Your task to perform on an android device: delete browsing data in the chrome app Image 0: 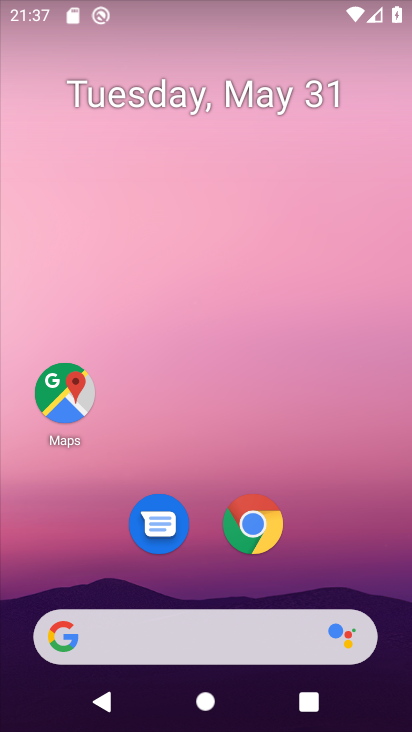
Step 0: click (258, 516)
Your task to perform on an android device: delete browsing data in the chrome app Image 1: 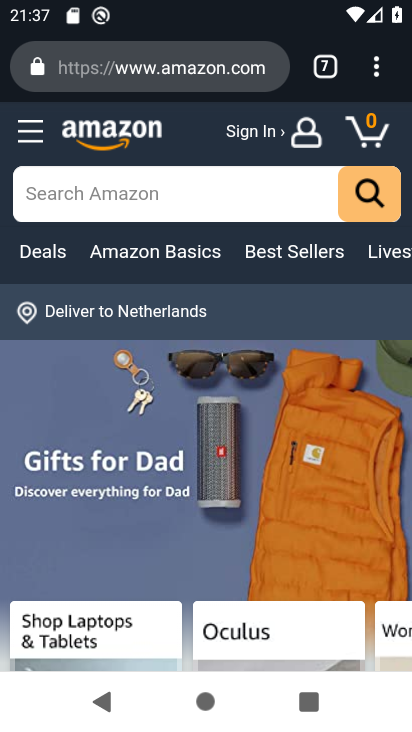
Step 1: click (378, 62)
Your task to perform on an android device: delete browsing data in the chrome app Image 2: 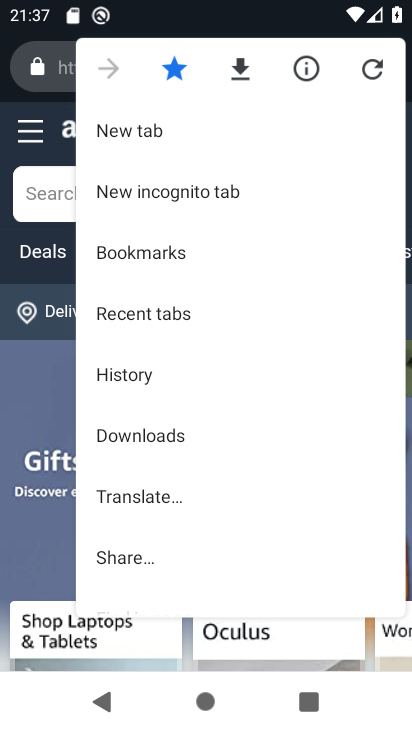
Step 2: click (154, 373)
Your task to perform on an android device: delete browsing data in the chrome app Image 3: 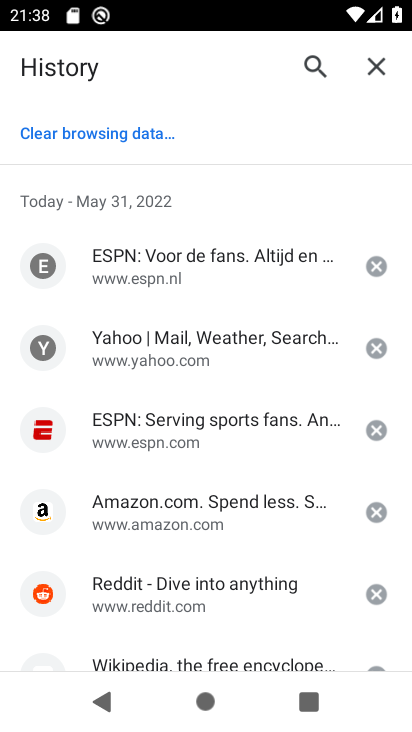
Step 3: click (147, 135)
Your task to perform on an android device: delete browsing data in the chrome app Image 4: 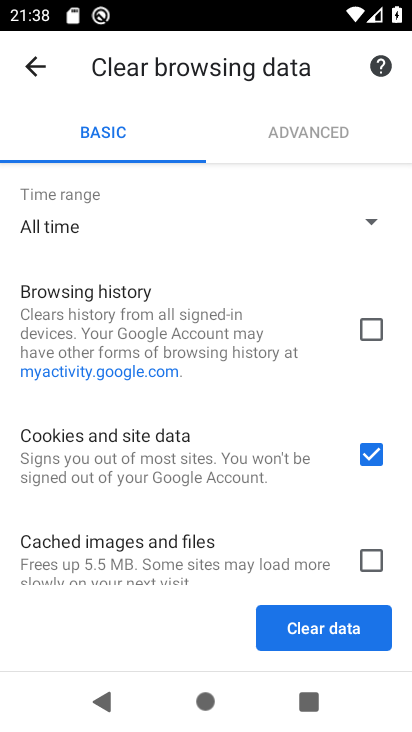
Step 4: click (372, 322)
Your task to perform on an android device: delete browsing data in the chrome app Image 5: 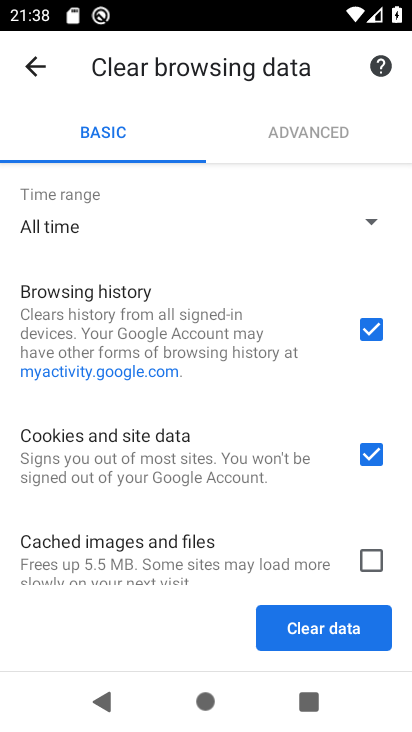
Step 5: click (372, 561)
Your task to perform on an android device: delete browsing data in the chrome app Image 6: 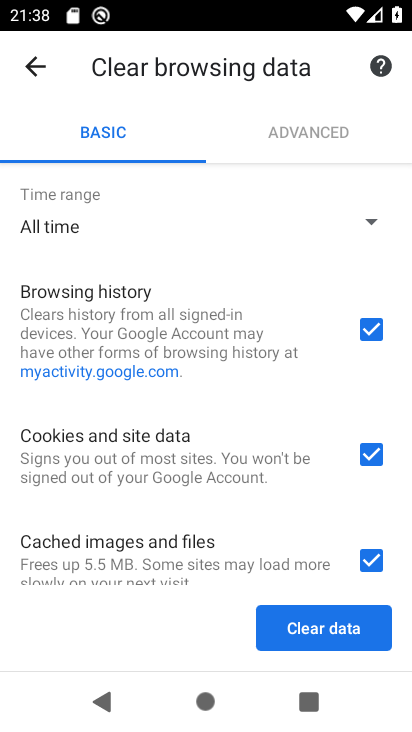
Step 6: click (346, 627)
Your task to perform on an android device: delete browsing data in the chrome app Image 7: 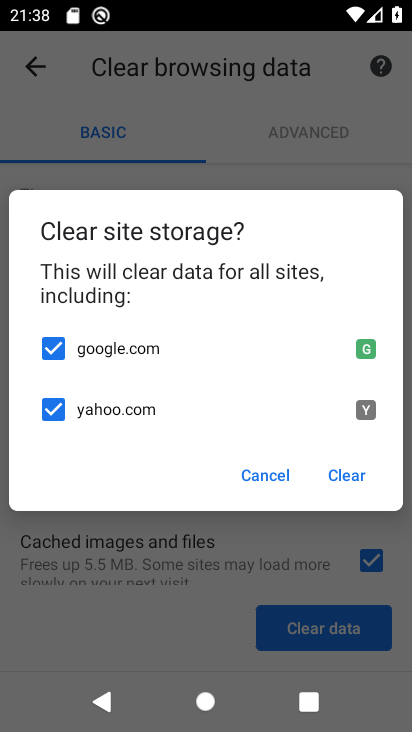
Step 7: click (356, 472)
Your task to perform on an android device: delete browsing data in the chrome app Image 8: 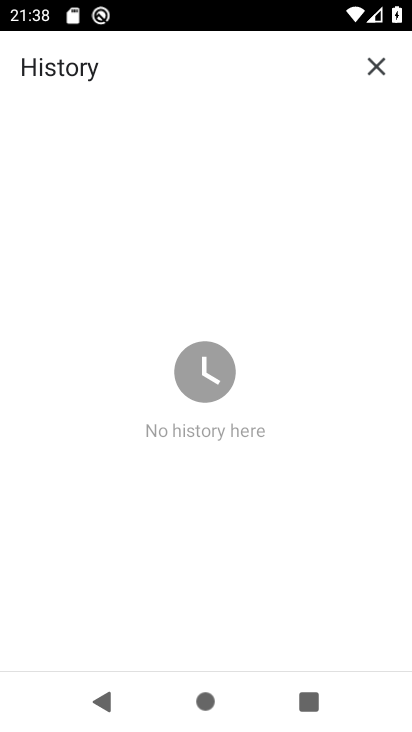
Step 8: task complete